Your task to perform on an android device: add a contact Image 0: 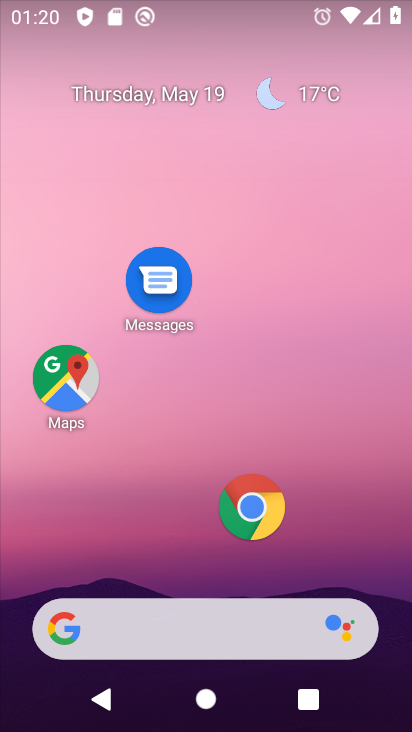
Step 0: drag from (210, 526) to (309, 19)
Your task to perform on an android device: add a contact Image 1: 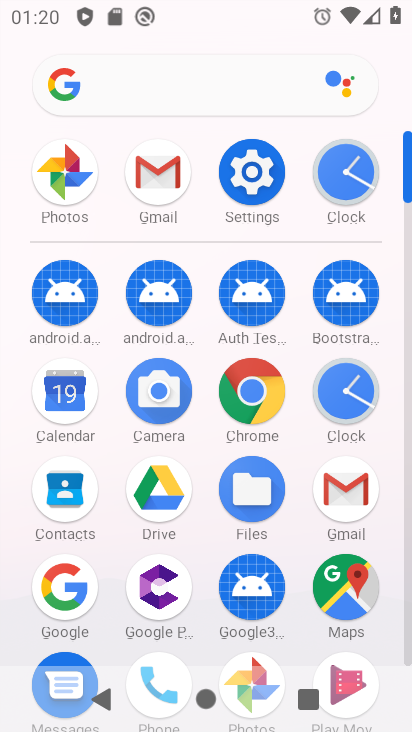
Step 1: click (53, 481)
Your task to perform on an android device: add a contact Image 2: 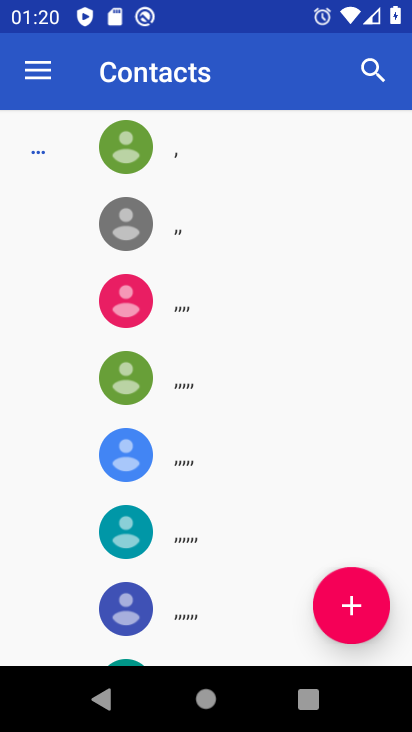
Step 2: click (344, 599)
Your task to perform on an android device: add a contact Image 3: 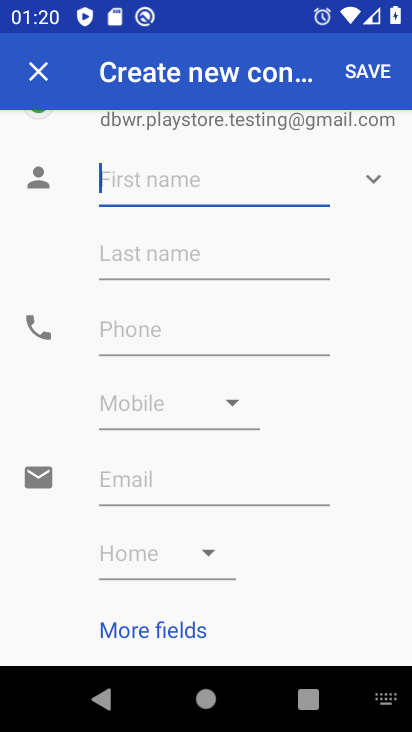
Step 3: click (126, 187)
Your task to perform on an android device: add a contact Image 4: 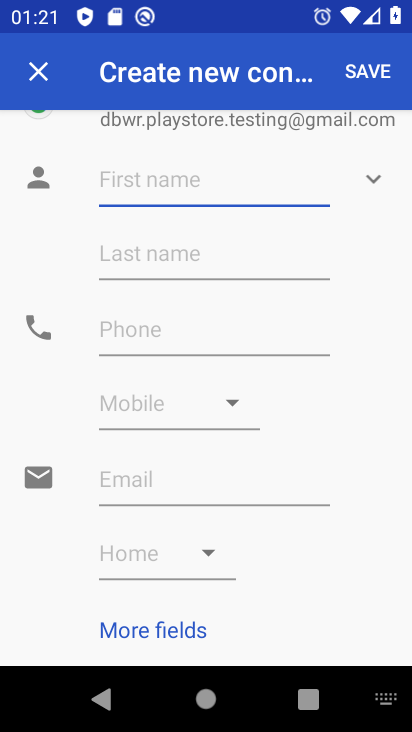
Step 4: type "jhika"
Your task to perform on an android device: add a contact Image 5: 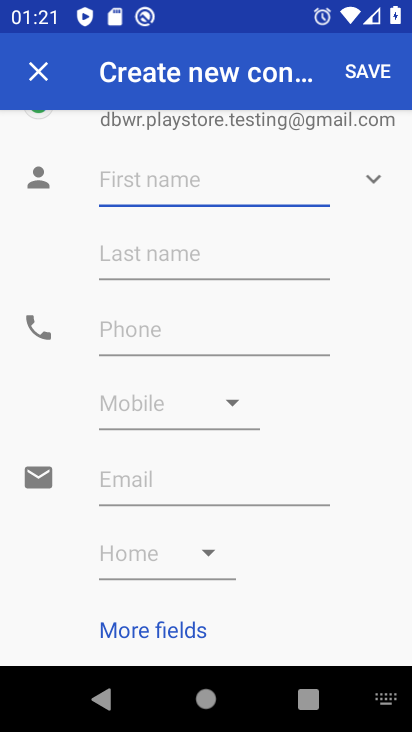
Step 5: click (169, 260)
Your task to perform on an android device: add a contact Image 6: 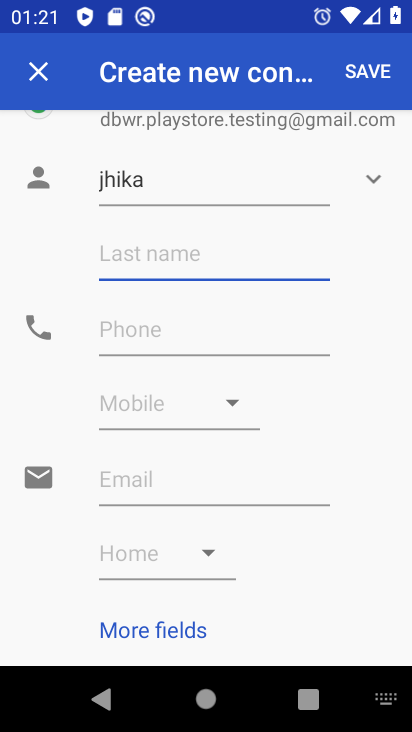
Step 6: click (135, 330)
Your task to perform on an android device: add a contact Image 7: 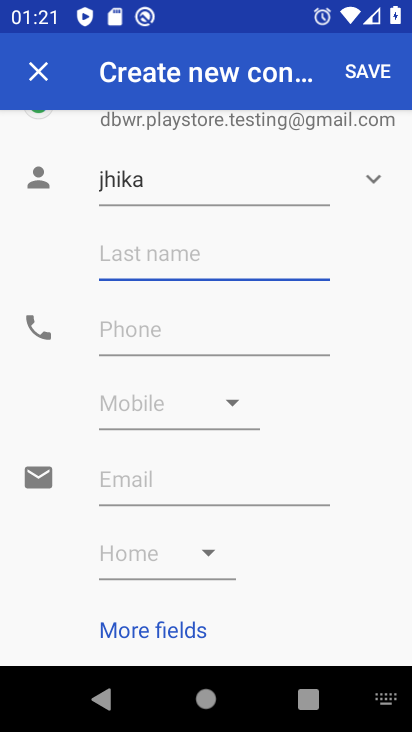
Step 7: type "liku"
Your task to perform on an android device: add a contact Image 8: 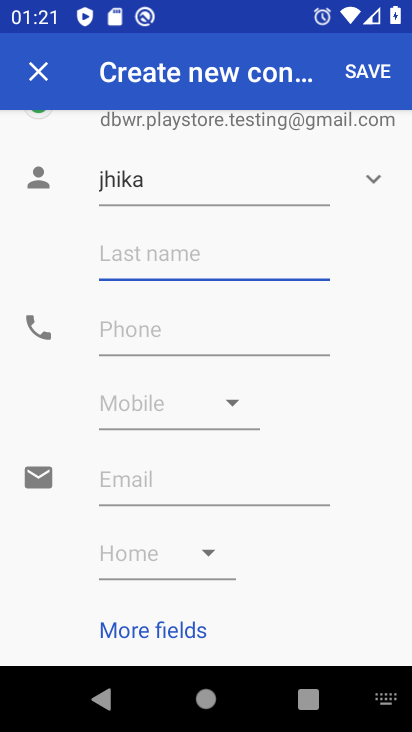
Step 8: click (135, 330)
Your task to perform on an android device: add a contact Image 9: 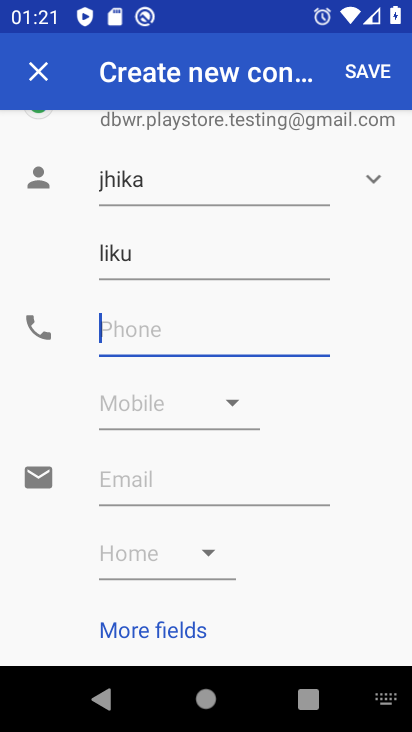
Step 9: type "7876757473"
Your task to perform on an android device: add a contact Image 10: 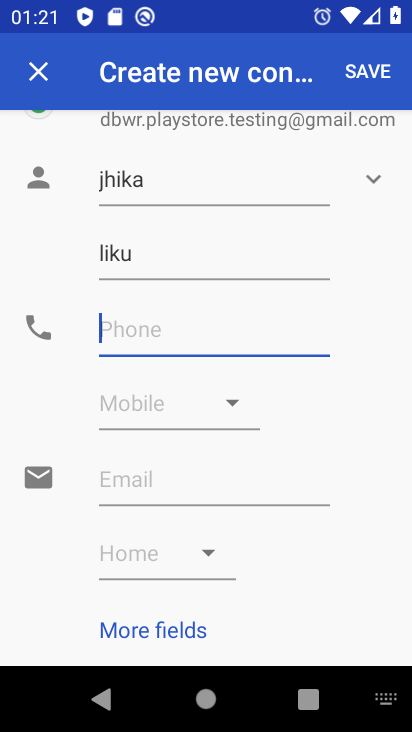
Step 10: click (136, 410)
Your task to perform on an android device: add a contact Image 11: 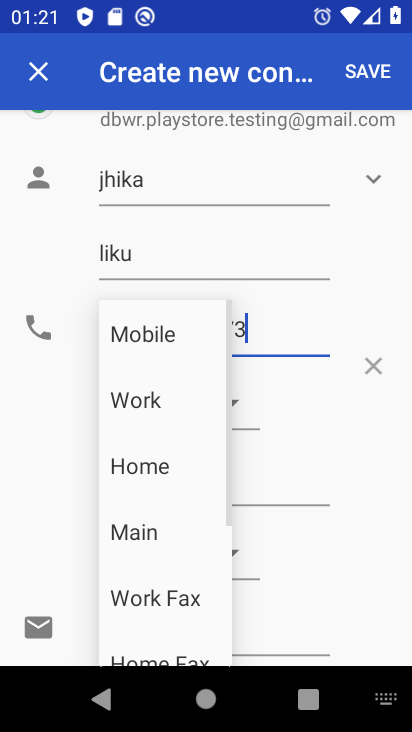
Step 11: click (161, 331)
Your task to perform on an android device: add a contact Image 12: 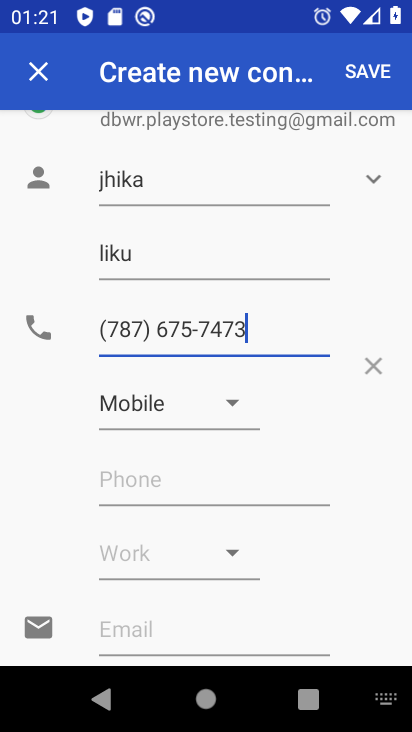
Step 12: click (372, 75)
Your task to perform on an android device: add a contact Image 13: 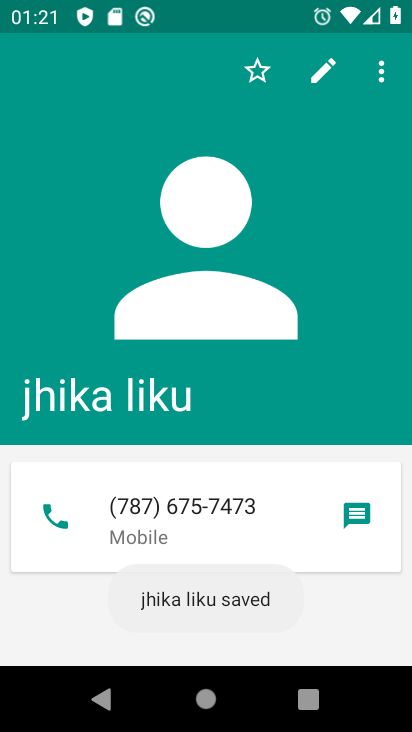
Step 13: task complete